Your task to perform on an android device: Go to Wikipedia Image 0: 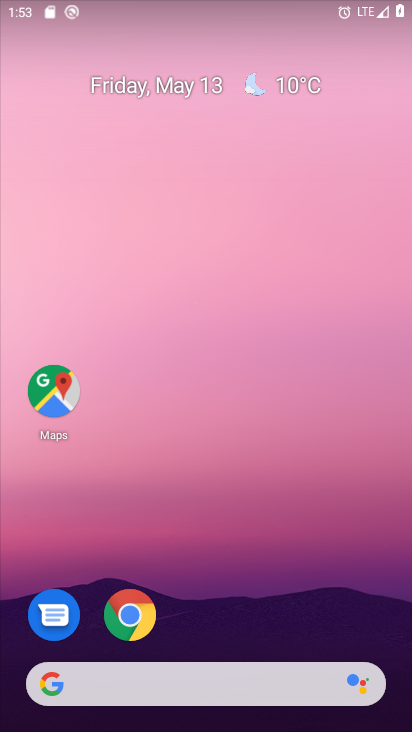
Step 0: drag from (239, 579) to (254, 55)
Your task to perform on an android device: Go to Wikipedia Image 1: 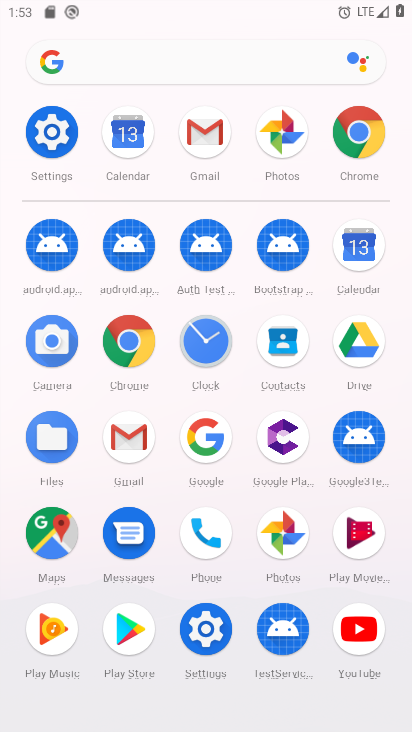
Step 1: click (348, 137)
Your task to perform on an android device: Go to Wikipedia Image 2: 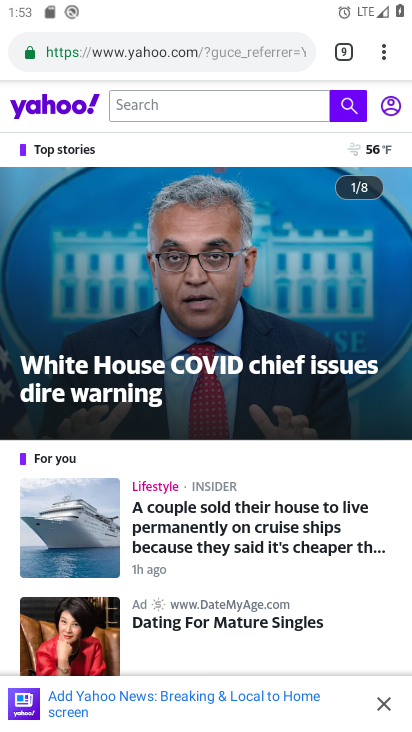
Step 2: click (380, 58)
Your task to perform on an android device: Go to Wikipedia Image 3: 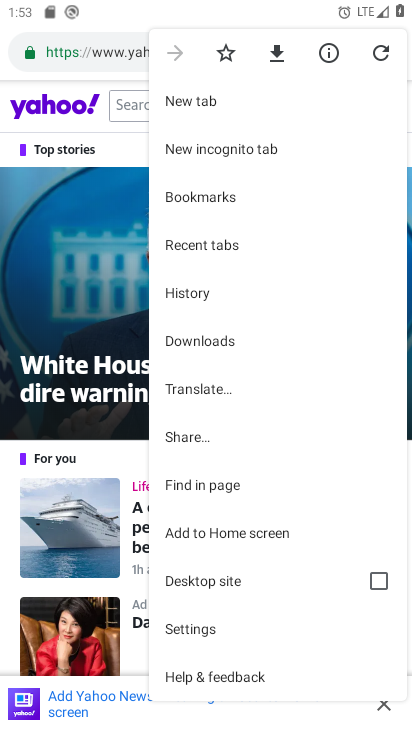
Step 3: click (251, 99)
Your task to perform on an android device: Go to Wikipedia Image 4: 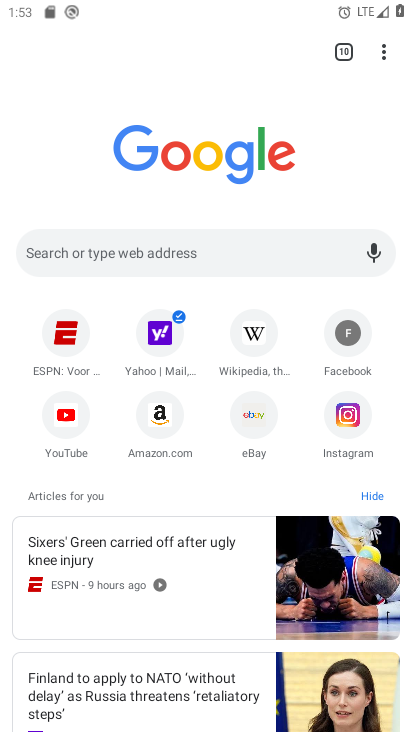
Step 4: click (253, 329)
Your task to perform on an android device: Go to Wikipedia Image 5: 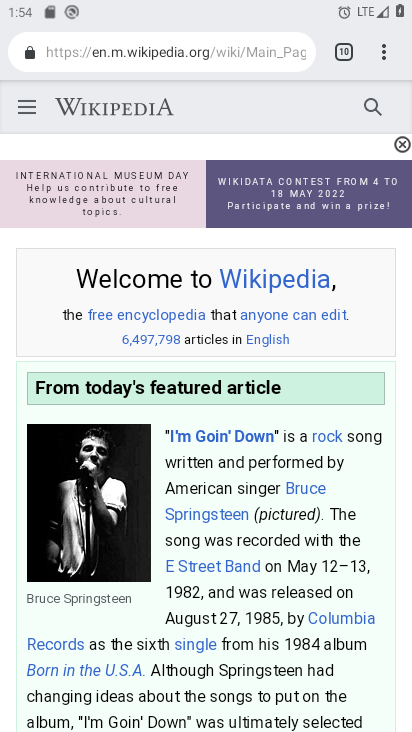
Step 5: task complete